Your task to perform on an android device: stop showing notifications on the lock screen Image 0: 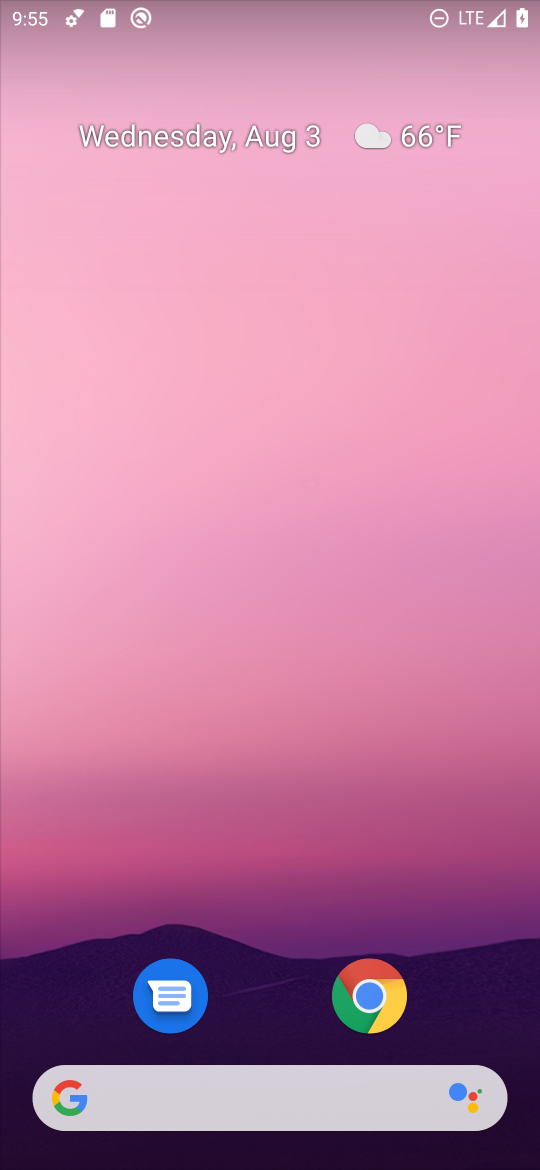
Step 0: drag from (293, 756) to (355, 0)
Your task to perform on an android device: stop showing notifications on the lock screen Image 1: 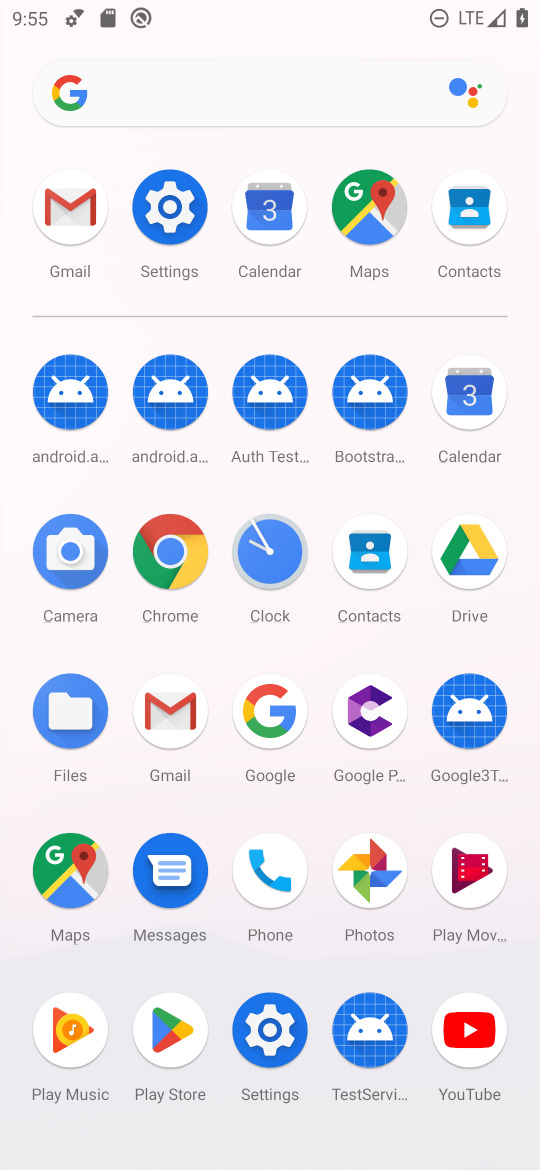
Step 1: click (175, 194)
Your task to perform on an android device: stop showing notifications on the lock screen Image 2: 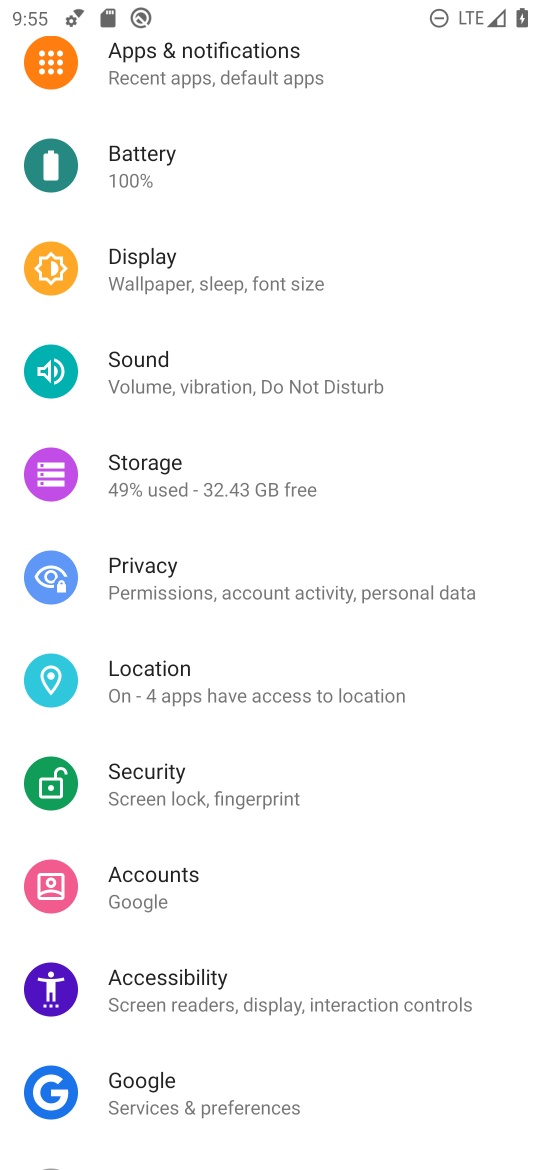
Step 2: click (226, 57)
Your task to perform on an android device: stop showing notifications on the lock screen Image 3: 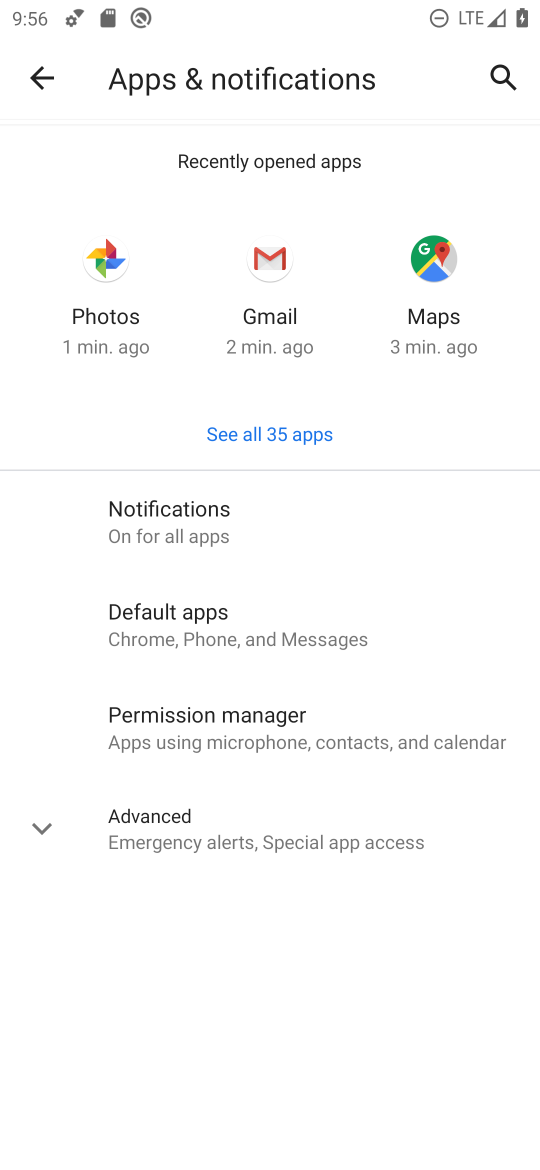
Step 3: click (46, 822)
Your task to perform on an android device: stop showing notifications on the lock screen Image 4: 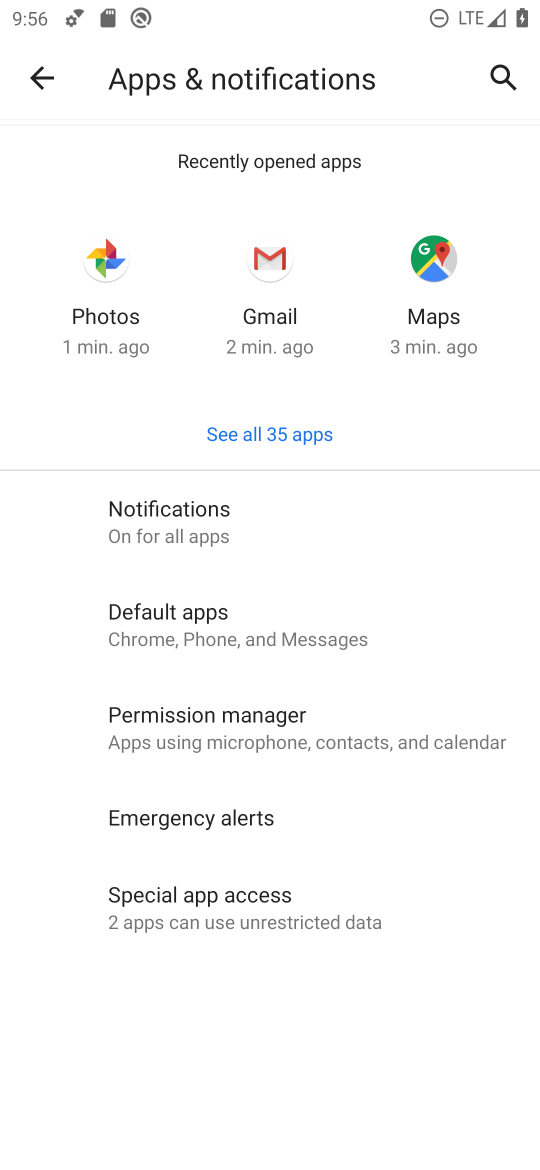
Step 4: click (182, 530)
Your task to perform on an android device: stop showing notifications on the lock screen Image 5: 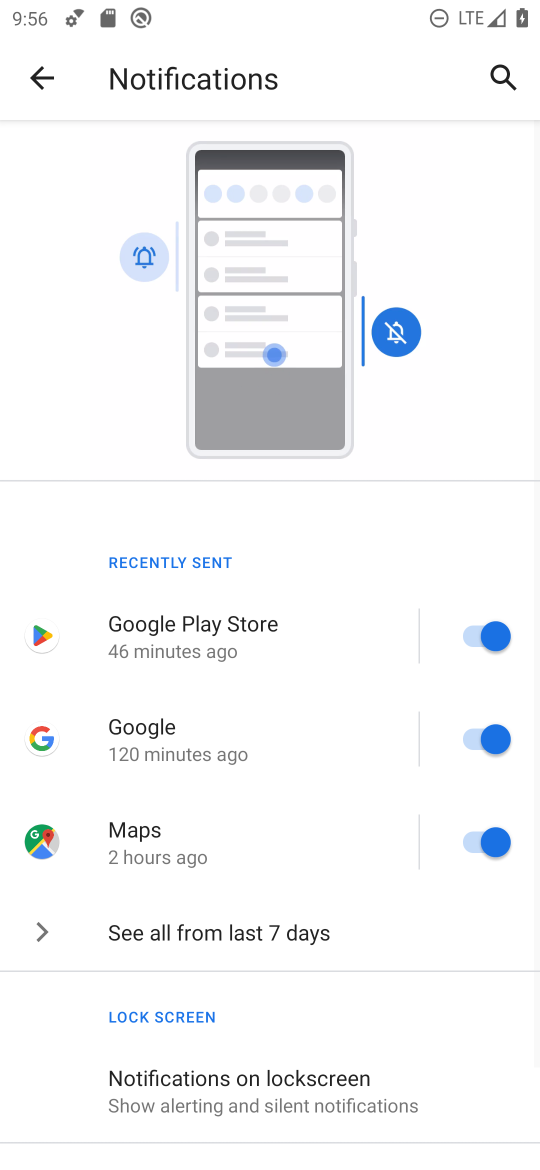
Step 5: drag from (290, 831) to (337, 75)
Your task to perform on an android device: stop showing notifications on the lock screen Image 6: 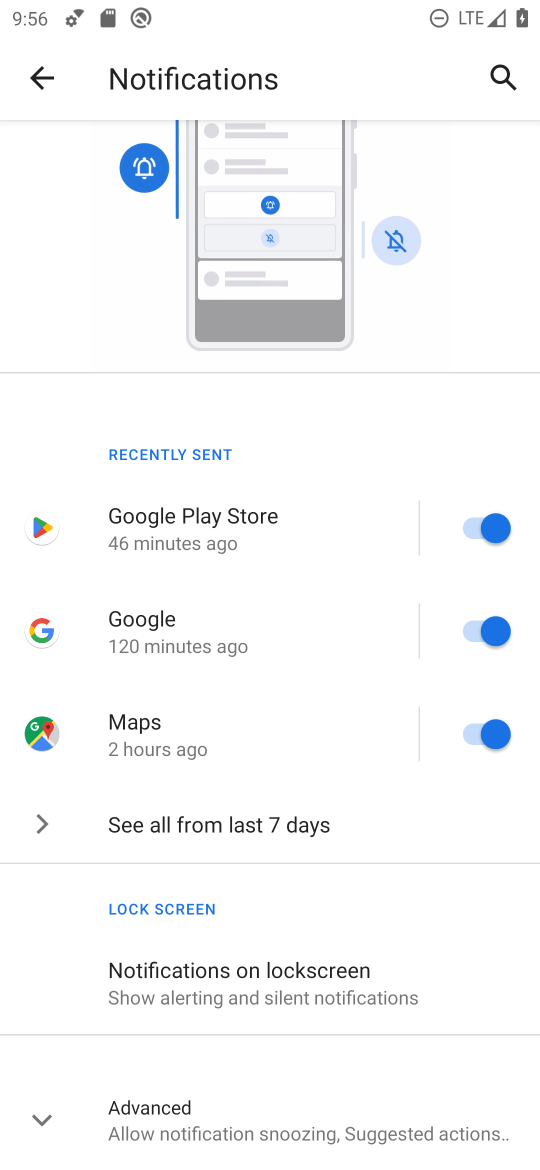
Step 6: click (173, 985)
Your task to perform on an android device: stop showing notifications on the lock screen Image 7: 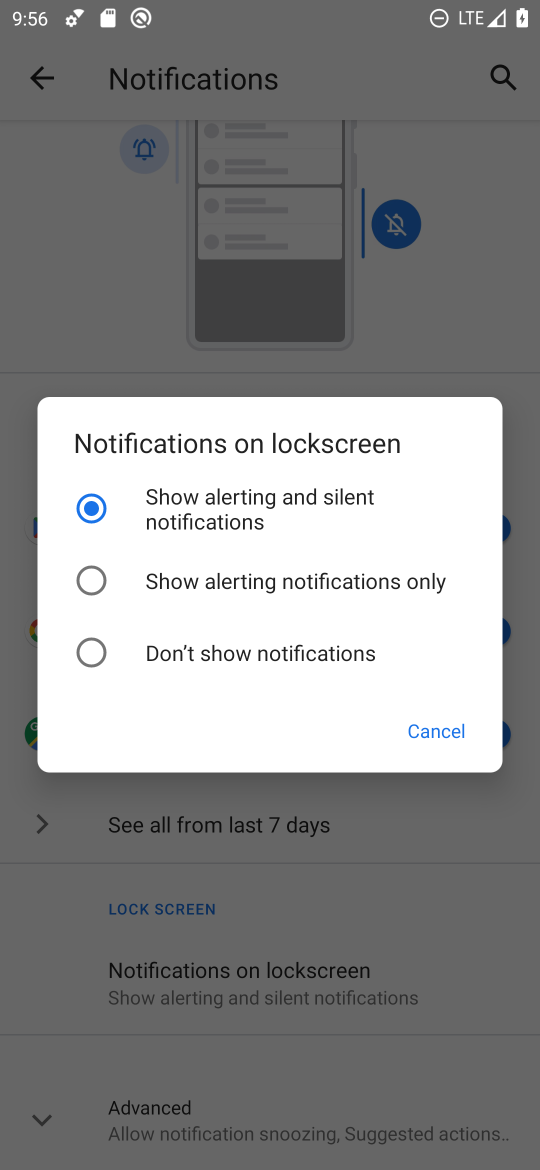
Step 7: click (89, 648)
Your task to perform on an android device: stop showing notifications on the lock screen Image 8: 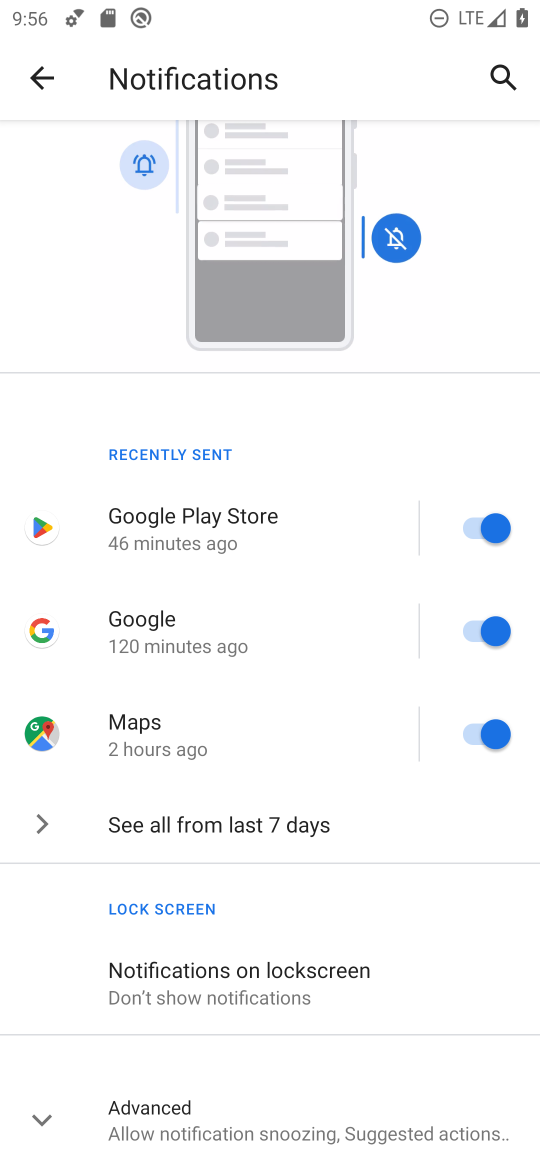
Step 8: task complete